Your task to perform on an android device: When is my next appointment? Image 0: 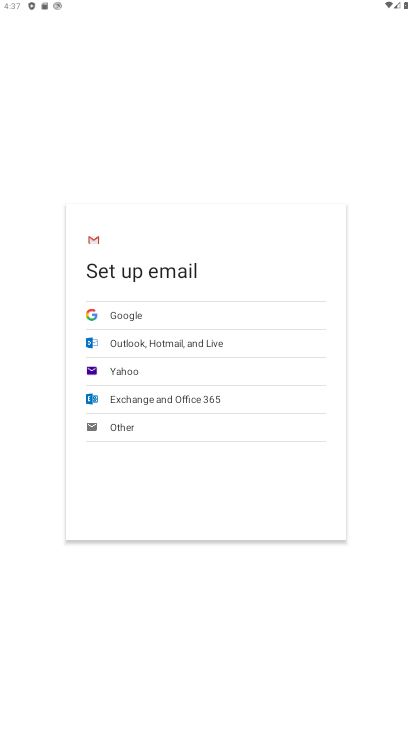
Step 0: press back button
Your task to perform on an android device: When is my next appointment? Image 1: 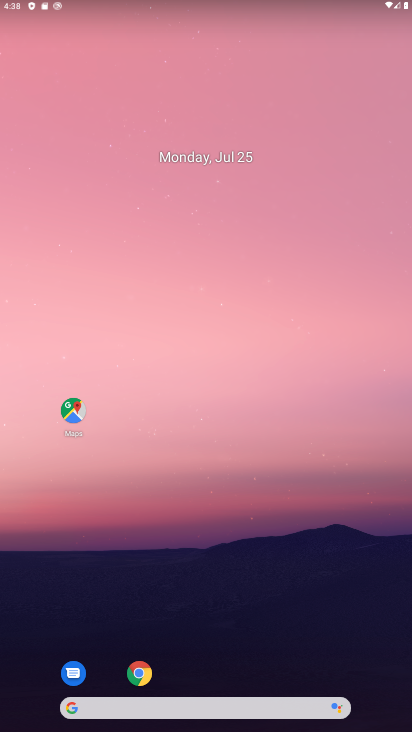
Step 1: drag from (258, 559) to (235, 47)
Your task to perform on an android device: When is my next appointment? Image 2: 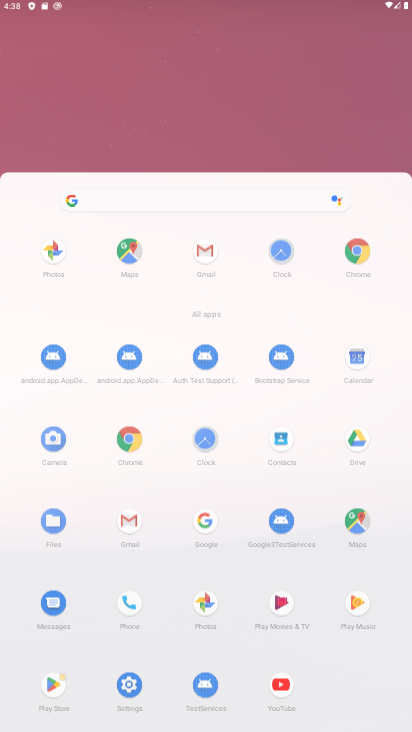
Step 2: drag from (243, 442) to (202, 9)
Your task to perform on an android device: When is my next appointment? Image 3: 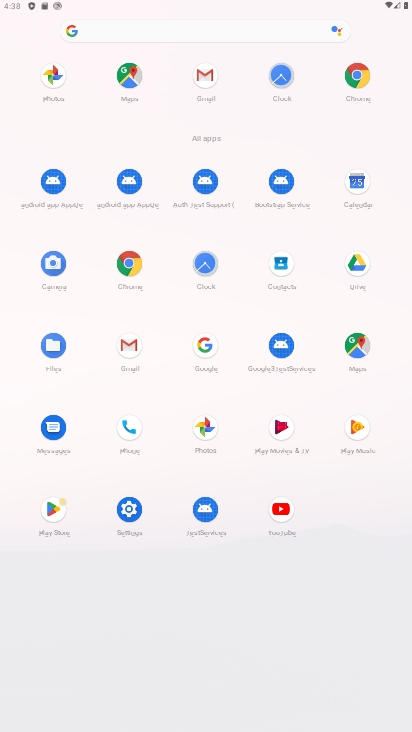
Step 3: click (157, 9)
Your task to perform on an android device: When is my next appointment? Image 4: 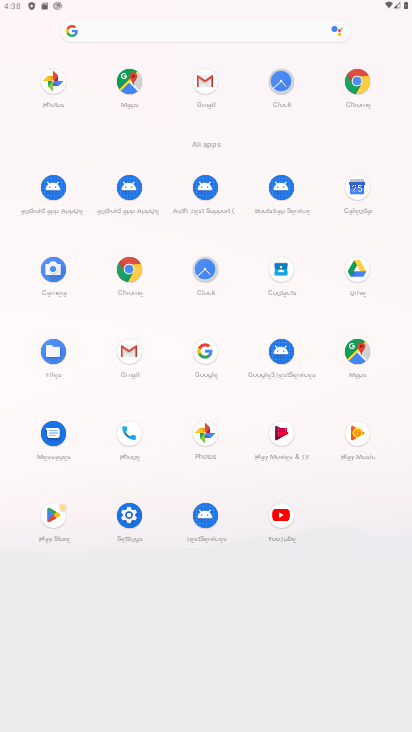
Step 4: click (352, 171)
Your task to perform on an android device: When is my next appointment? Image 5: 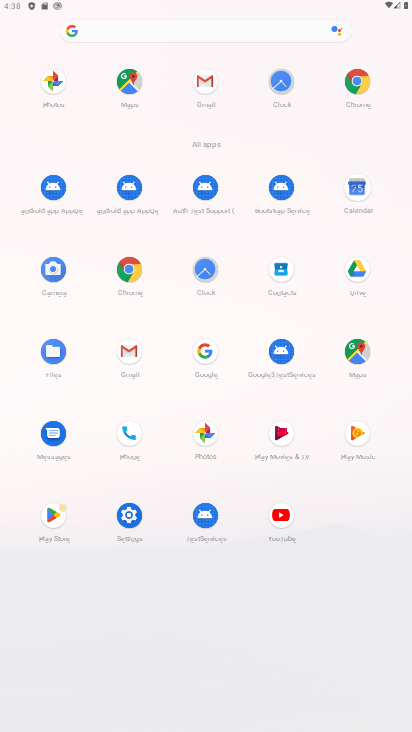
Step 5: click (358, 187)
Your task to perform on an android device: When is my next appointment? Image 6: 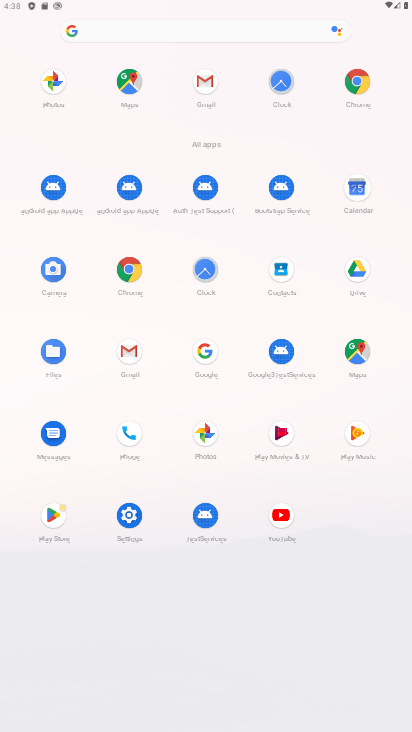
Step 6: click (367, 196)
Your task to perform on an android device: When is my next appointment? Image 7: 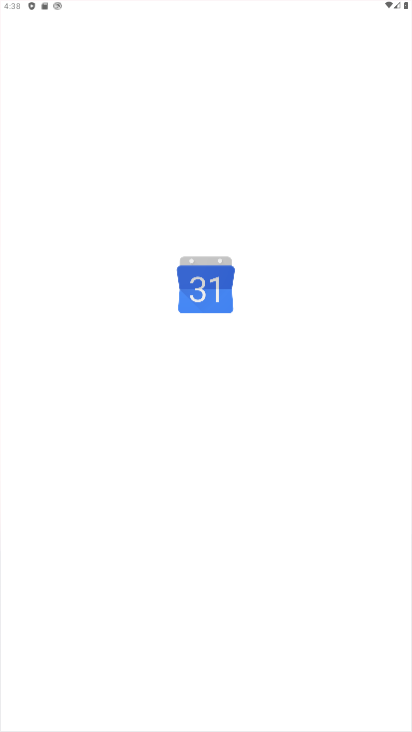
Step 7: click (361, 190)
Your task to perform on an android device: When is my next appointment? Image 8: 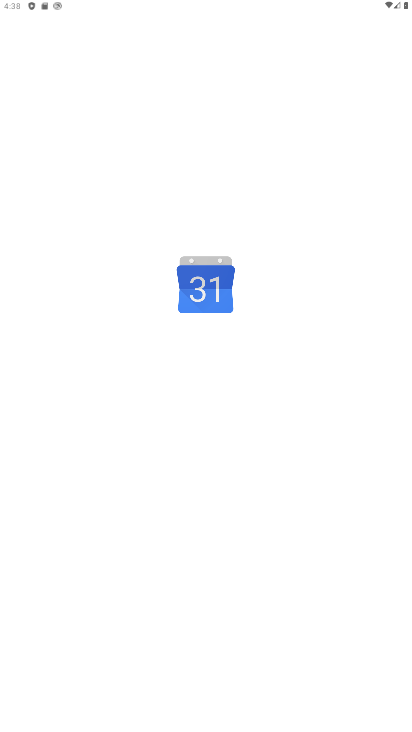
Step 8: click (361, 192)
Your task to perform on an android device: When is my next appointment? Image 9: 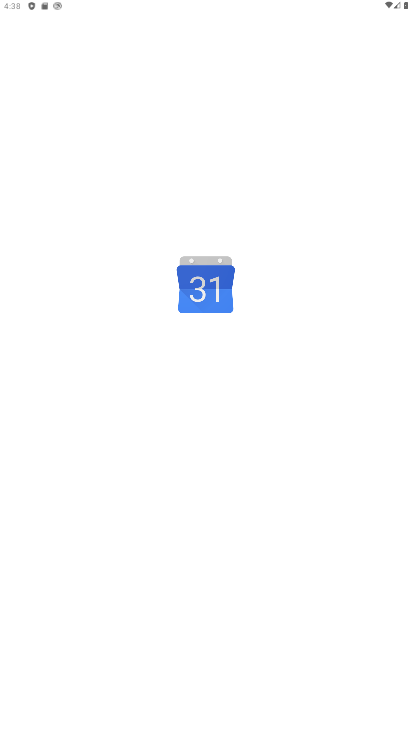
Step 9: click (356, 195)
Your task to perform on an android device: When is my next appointment? Image 10: 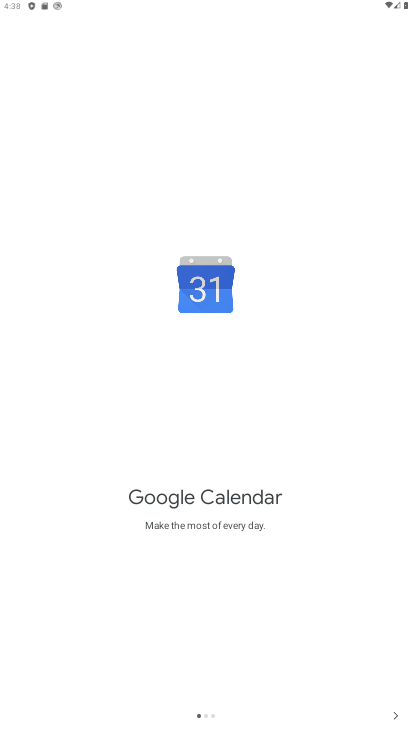
Step 10: click (390, 715)
Your task to perform on an android device: When is my next appointment? Image 11: 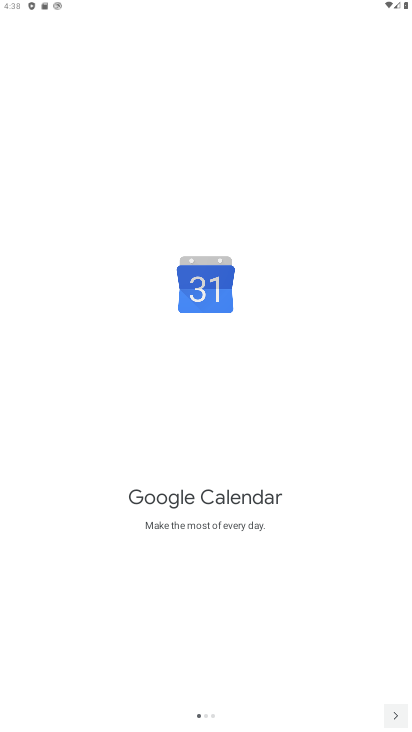
Step 11: click (390, 715)
Your task to perform on an android device: When is my next appointment? Image 12: 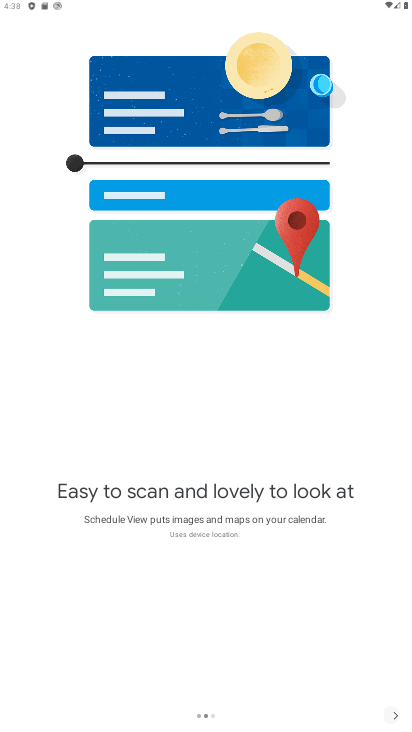
Step 12: click (390, 715)
Your task to perform on an android device: When is my next appointment? Image 13: 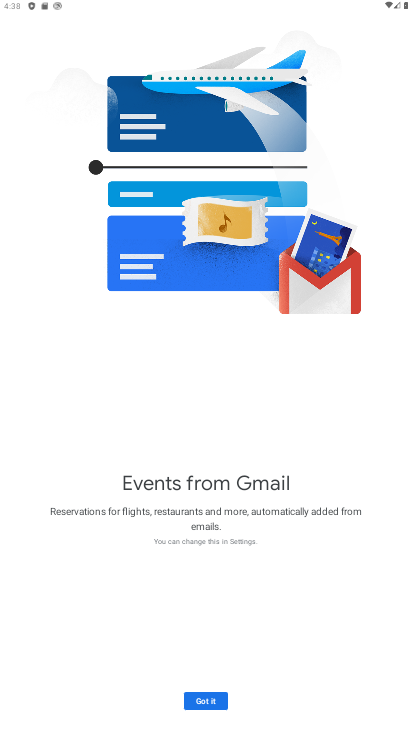
Step 13: click (396, 723)
Your task to perform on an android device: When is my next appointment? Image 14: 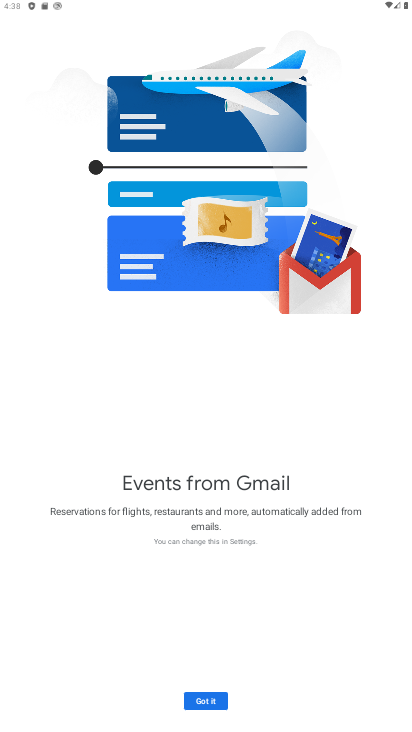
Step 14: click (397, 727)
Your task to perform on an android device: When is my next appointment? Image 15: 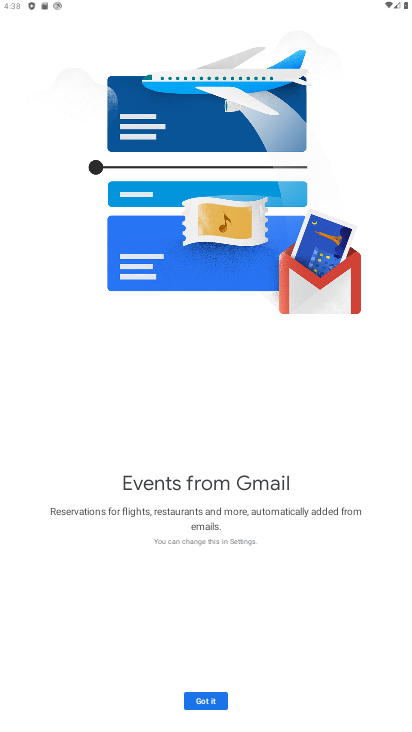
Step 15: click (208, 699)
Your task to perform on an android device: When is my next appointment? Image 16: 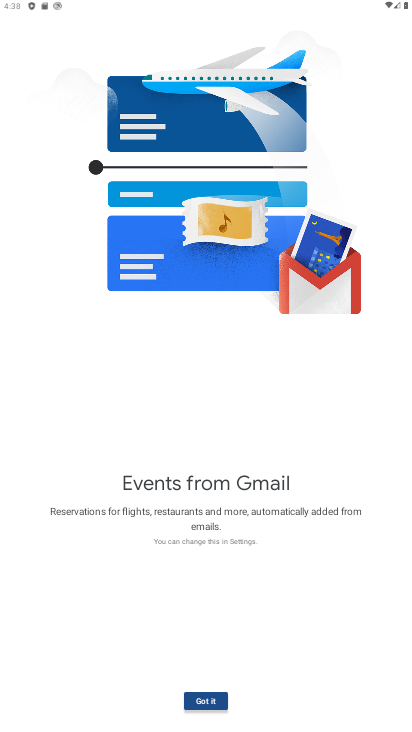
Step 16: click (211, 699)
Your task to perform on an android device: When is my next appointment? Image 17: 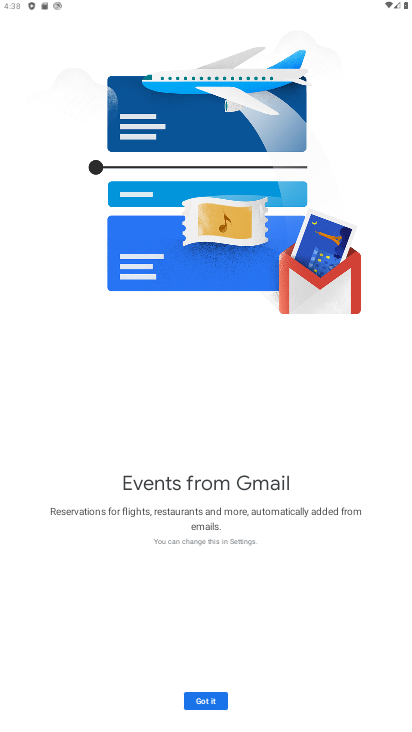
Step 17: click (212, 699)
Your task to perform on an android device: When is my next appointment? Image 18: 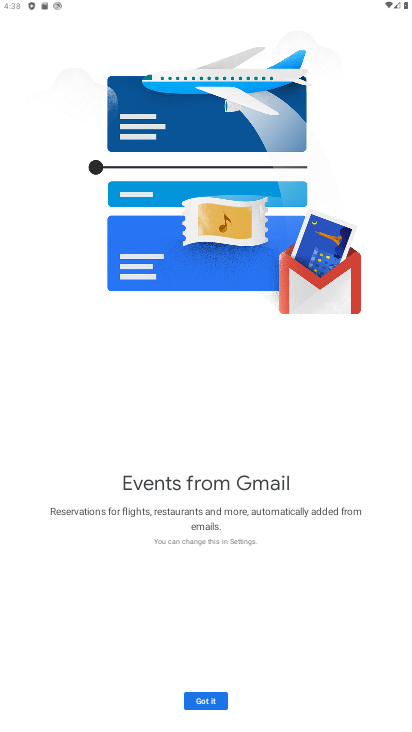
Step 18: click (237, 695)
Your task to perform on an android device: When is my next appointment? Image 19: 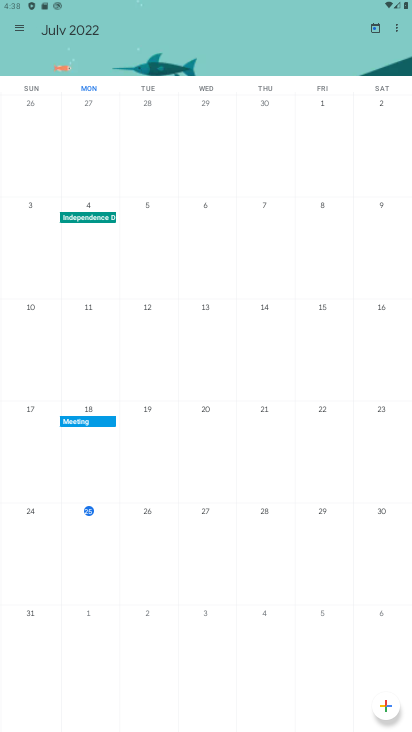
Step 19: task complete